Your task to perform on an android device: Do I have any events tomorrow? Image 0: 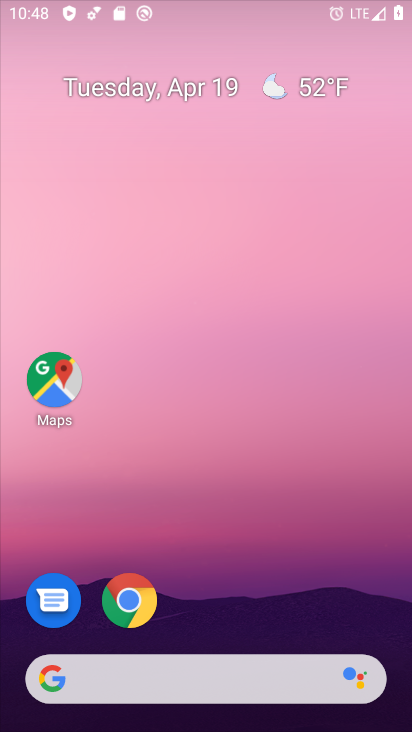
Step 0: click (148, 608)
Your task to perform on an android device: Do I have any events tomorrow? Image 1: 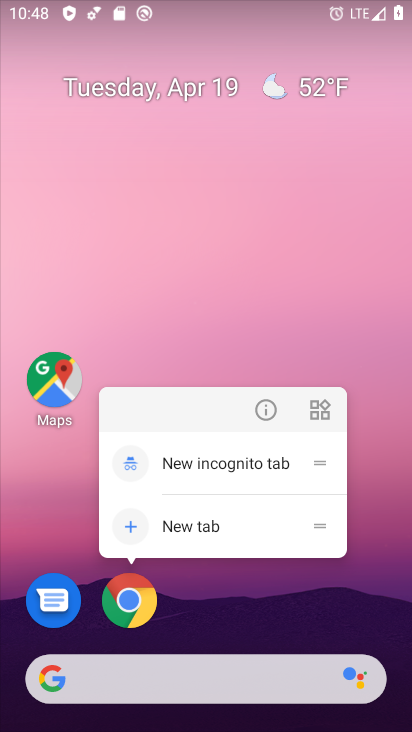
Step 1: press home button
Your task to perform on an android device: Do I have any events tomorrow? Image 2: 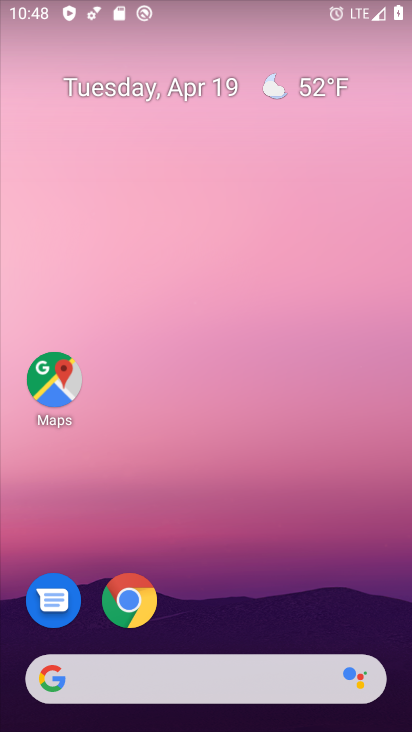
Step 2: drag from (242, 644) to (201, 21)
Your task to perform on an android device: Do I have any events tomorrow? Image 3: 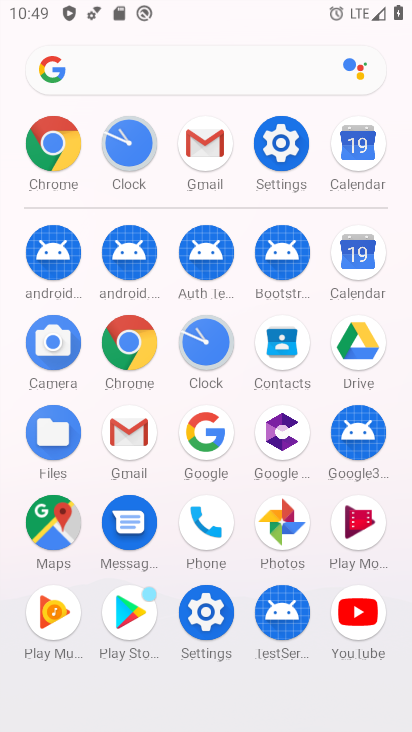
Step 3: click (358, 277)
Your task to perform on an android device: Do I have any events tomorrow? Image 4: 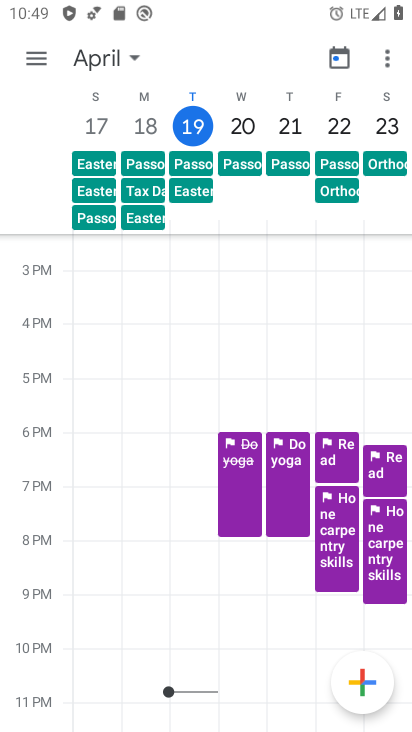
Step 4: click (234, 131)
Your task to perform on an android device: Do I have any events tomorrow? Image 5: 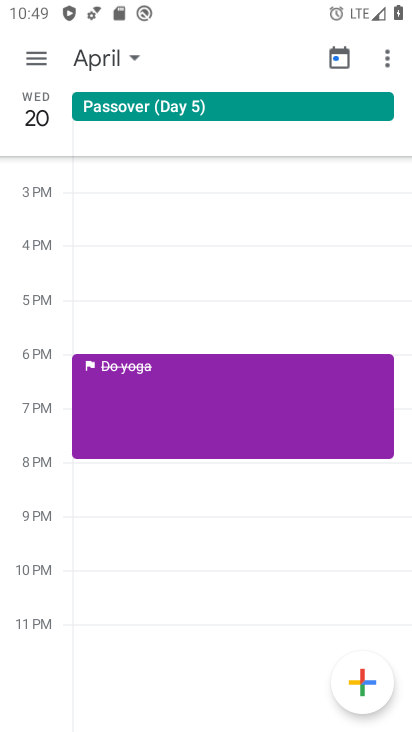
Step 5: task complete